Your task to perform on an android device: Open the stopwatch Image 0: 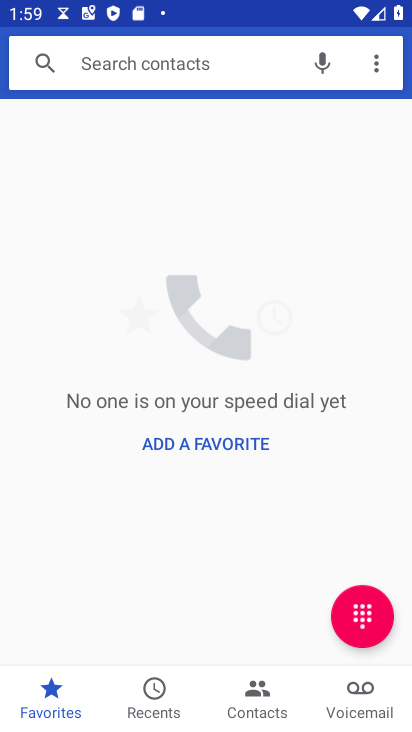
Step 0: press back button
Your task to perform on an android device: Open the stopwatch Image 1: 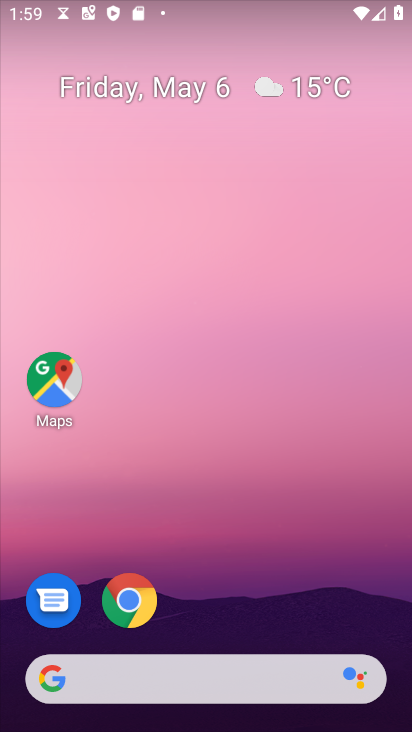
Step 1: drag from (268, 454) to (226, 24)
Your task to perform on an android device: Open the stopwatch Image 2: 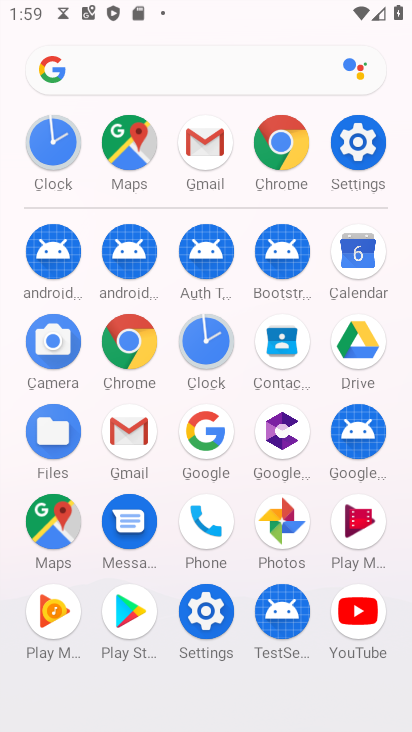
Step 2: drag from (6, 518) to (3, 189)
Your task to perform on an android device: Open the stopwatch Image 3: 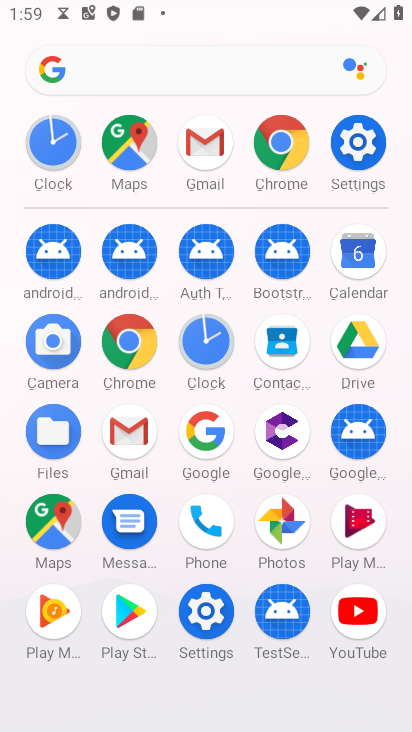
Step 3: click (204, 341)
Your task to perform on an android device: Open the stopwatch Image 4: 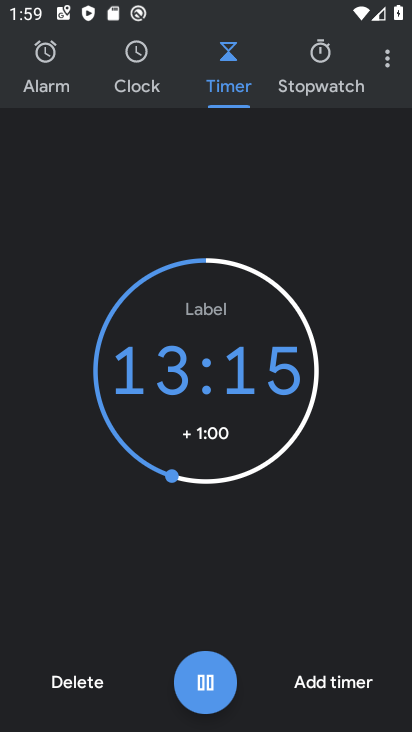
Step 4: click (309, 40)
Your task to perform on an android device: Open the stopwatch Image 5: 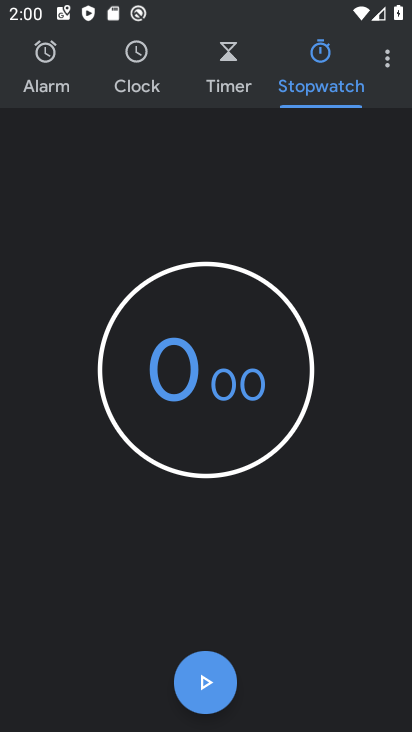
Step 5: task complete